Your task to perform on an android device: Open the map Image 0: 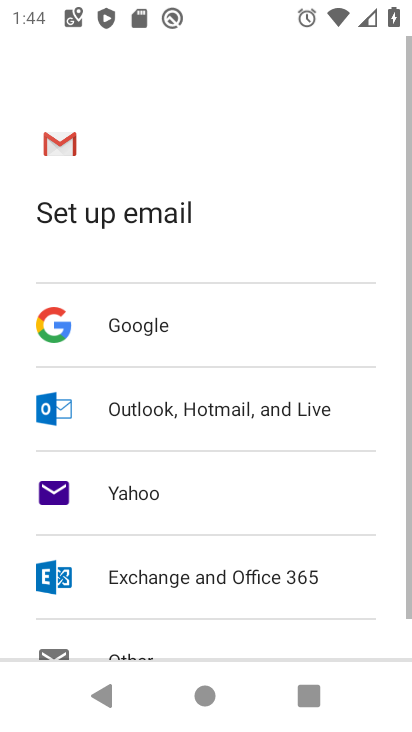
Step 0: press home button
Your task to perform on an android device: Open the map Image 1: 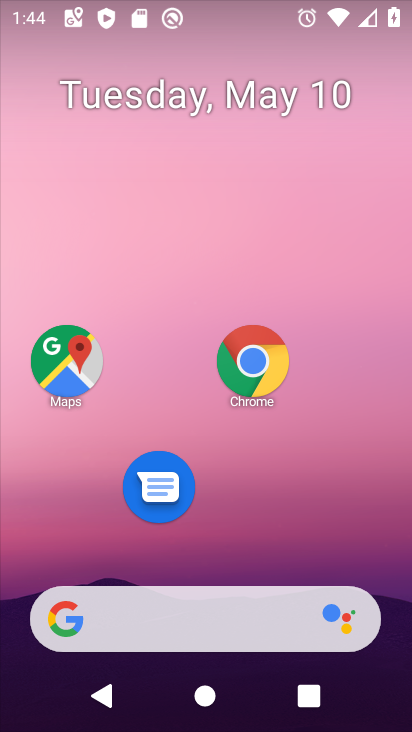
Step 1: click (305, 490)
Your task to perform on an android device: Open the map Image 2: 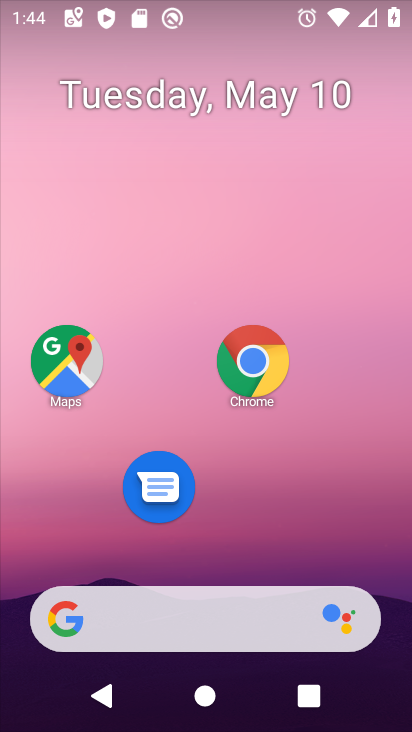
Step 2: click (61, 359)
Your task to perform on an android device: Open the map Image 3: 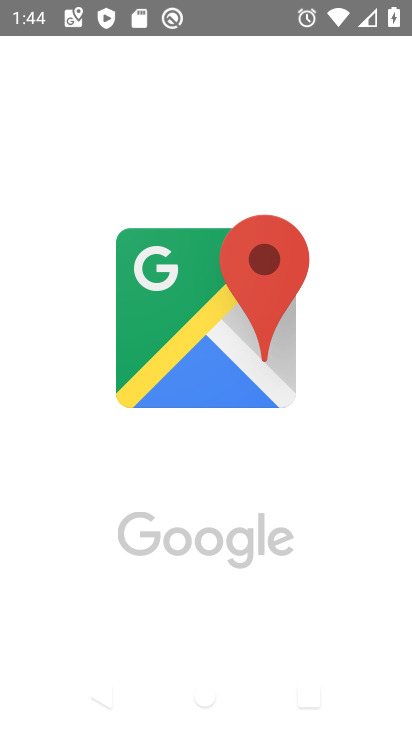
Step 3: task complete